Your task to perform on an android device: Go to accessibility settings Image 0: 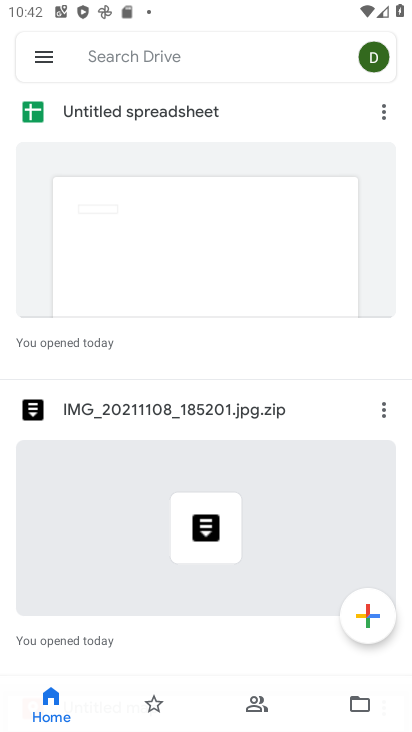
Step 0: press home button
Your task to perform on an android device: Go to accessibility settings Image 1: 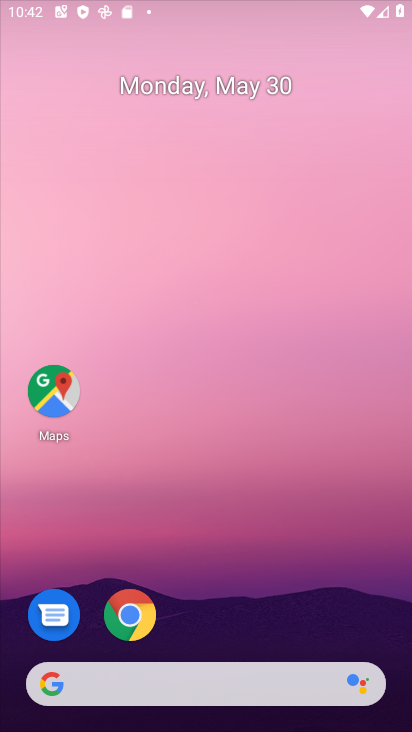
Step 1: drag from (289, 569) to (52, 0)
Your task to perform on an android device: Go to accessibility settings Image 2: 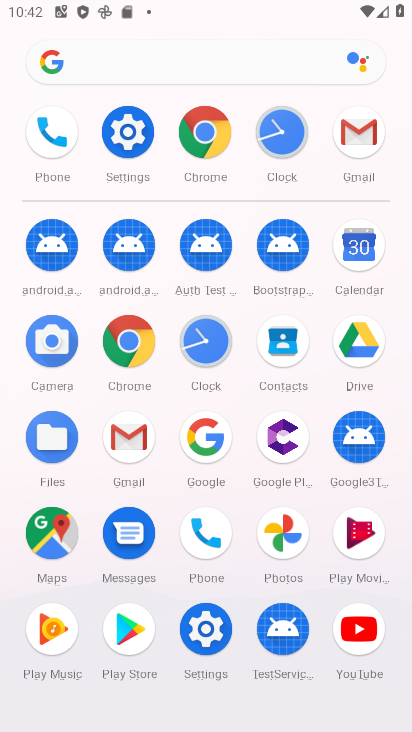
Step 2: click (129, 196)
Your task to perform on an android device: Go to accessibility settings Image 3: 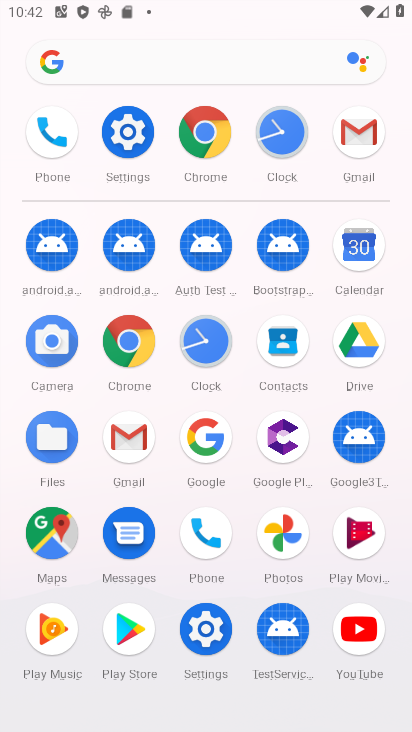
Step 3: click (141, 129)
Your task to perform on an android device: Go to accessibility settings Image 4: 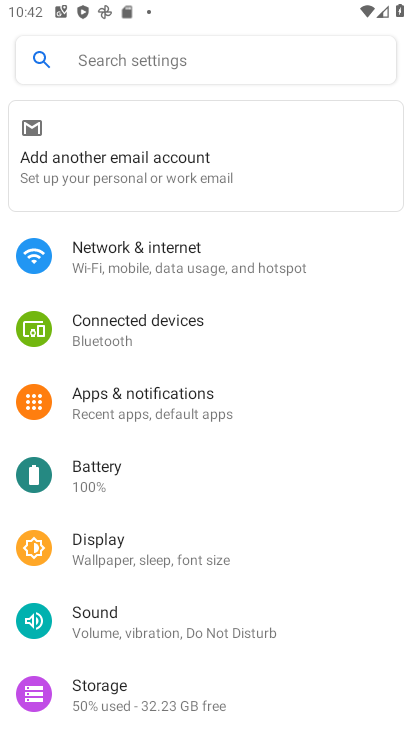
Step 4: drag from (178, 629) to (139, 40)
Your task to perform on an android device: Go to accessibility settings Image 5: 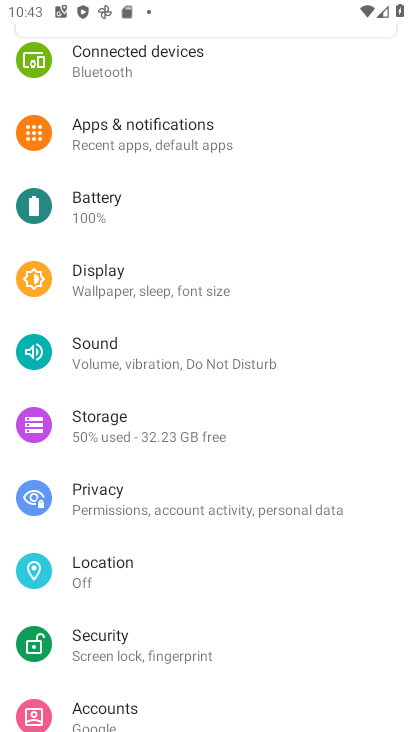
Step 5: drag from (183, 603) to (225, 211)
Your task to perform on an android device: Go to accessibility settings Image 6: 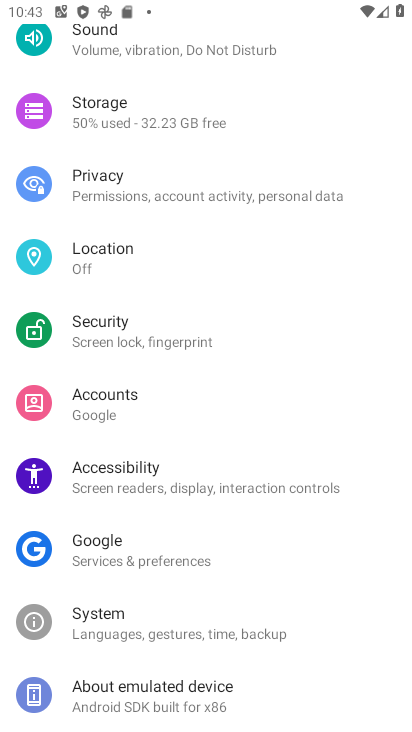
Step 6: click (160, 485)
Your task to perform on an android device: Go to accessibility settings Image 7: 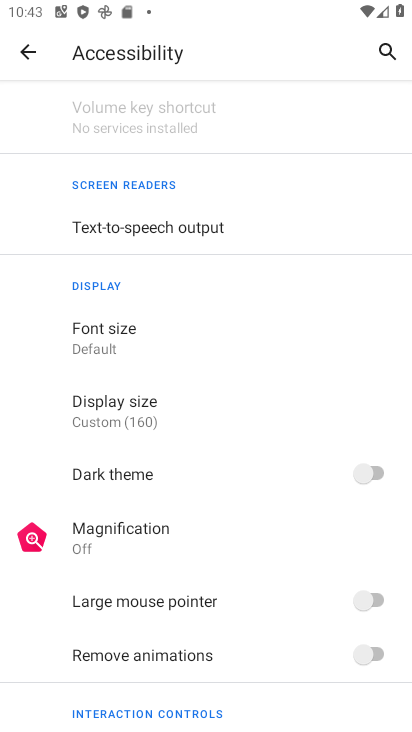
Step 7: task complete